Your task to perform on an android device: Is it going to rain today? Image 0: 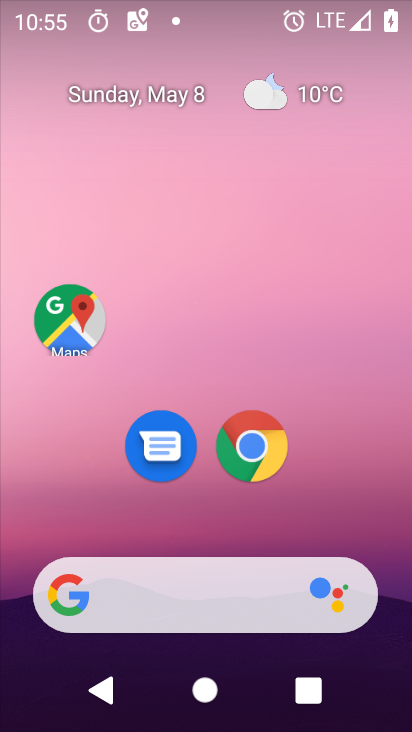
Step 0: click (314, 105)
Your task to perform on an android device: Is it going to rain today? Image 1: 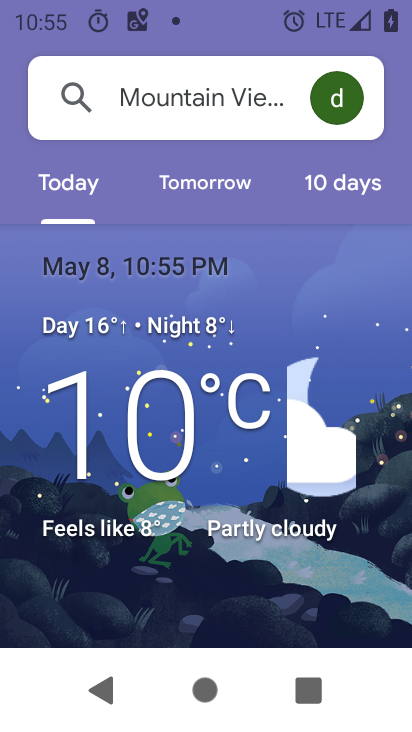
Step 1: task complete